Your task to perform on an android device: Search for the best rated tool bag on Lowe's. Image 0: 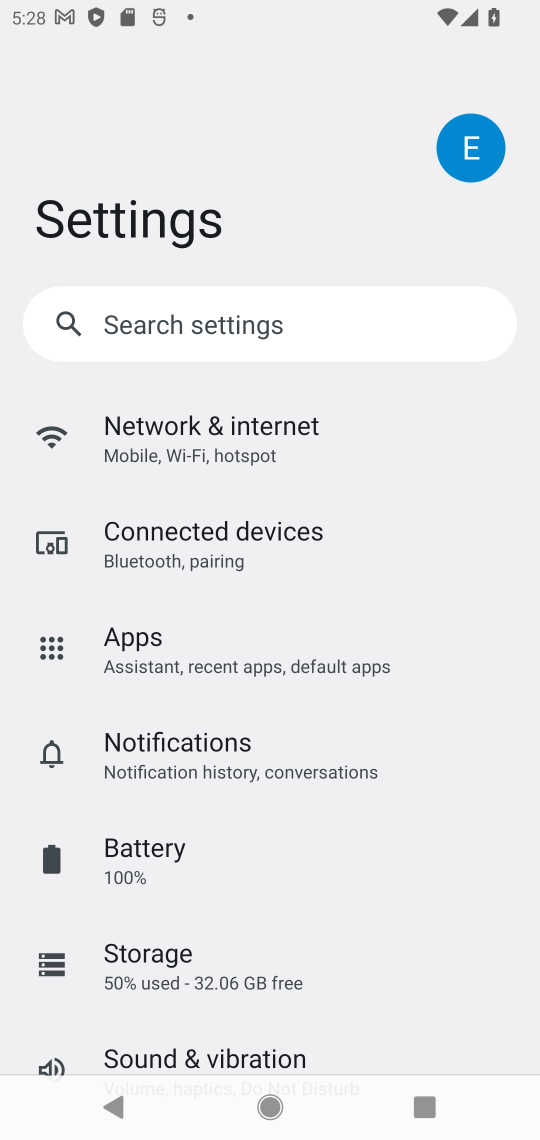
Step 0: press home button
Your task to perform on an android device: Search for the best rated tool bag on Lowe's. Image 1: 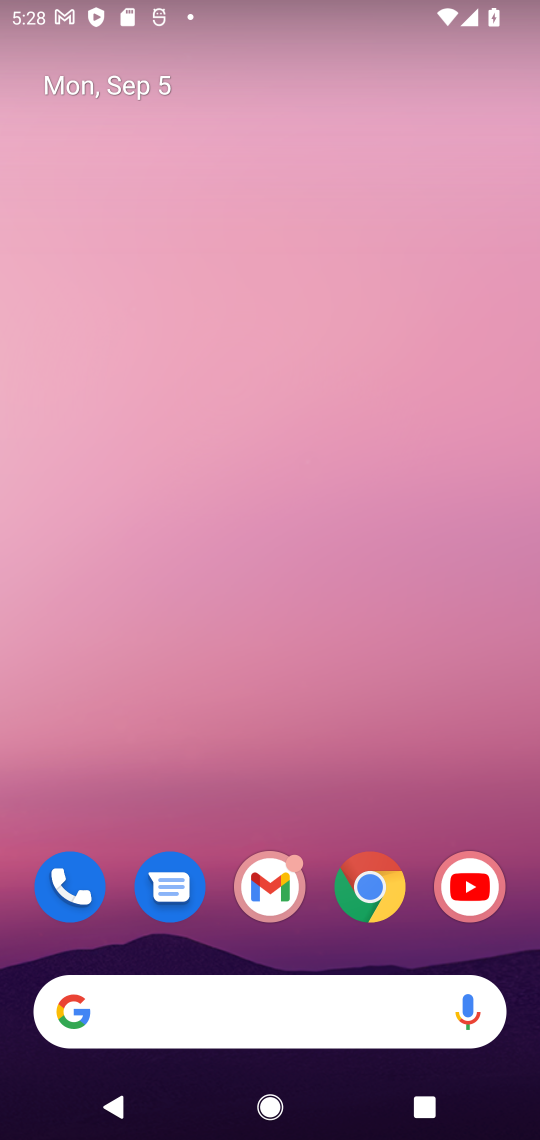
Step 1: drag from (320, 804) to (423, 316)
Your task to perform on an android device: Search for the best rated tool bag on Lowe's. Image 2: 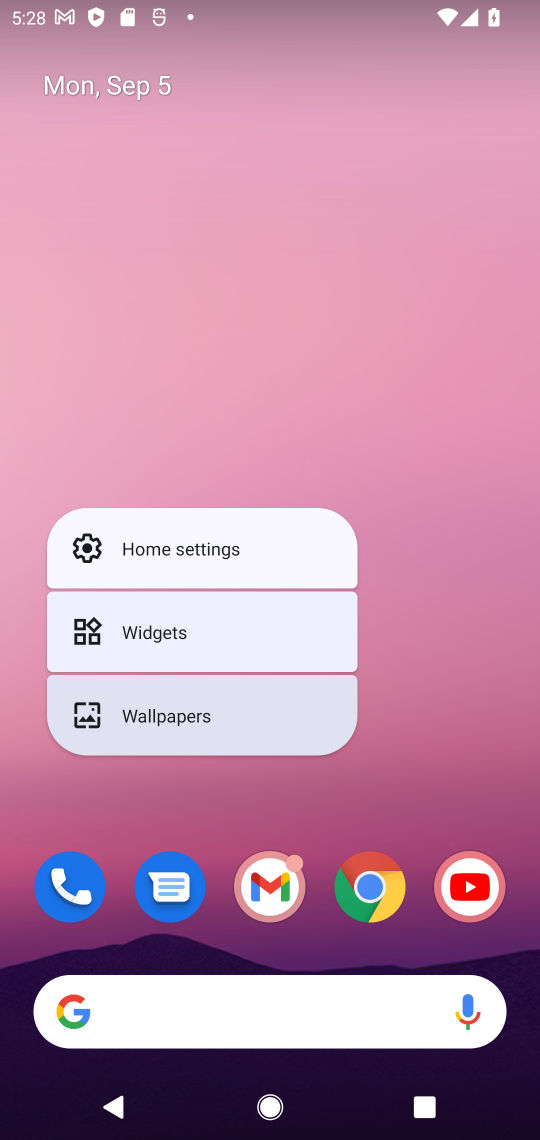
Step 2: click (479, 389)
Your task to perform on an android device: Search for the best rated tool bag on Lowe's. Image 3: 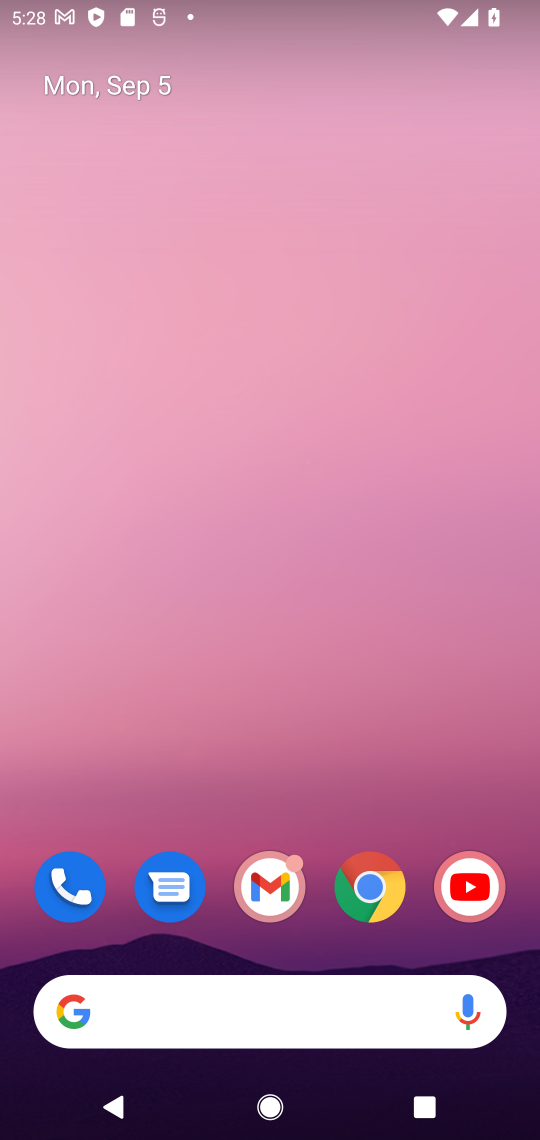
Step 3: drag from (324, 656) to (237, 78)
Your task to perform on an android device: Search for the best rated tool bag on Lowe's. Image 4: 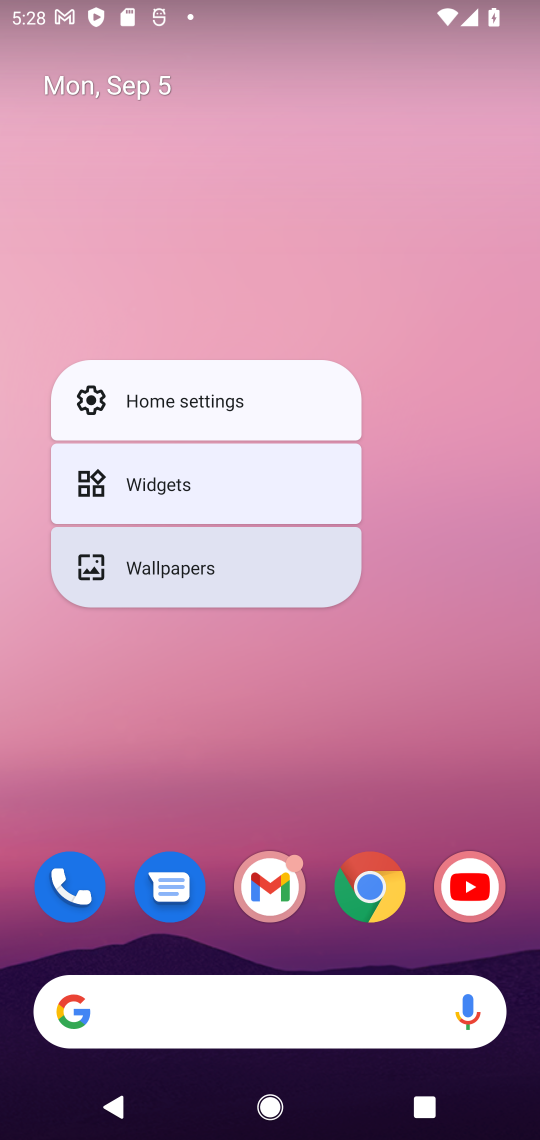
Step 4: click (253, 170)
Your task to perform on an android device: Search for the best rated tool bag on Lowe's. Image 5: 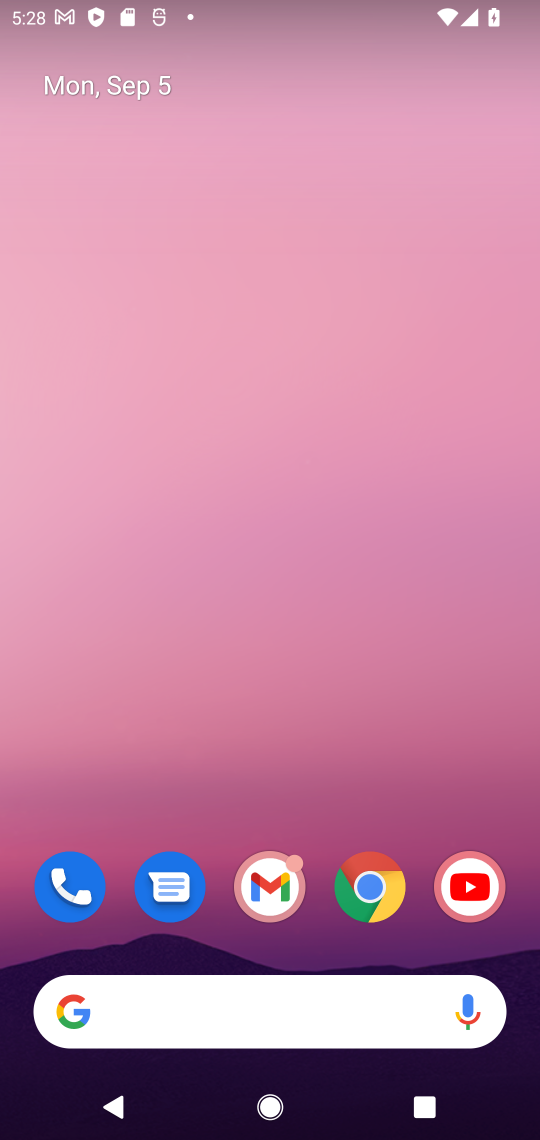
Step 5: drag from (270, 497) to (228, 103)
Your task to perform on an android device: Search for the best rated tool bag on Lowe's. Image 6: 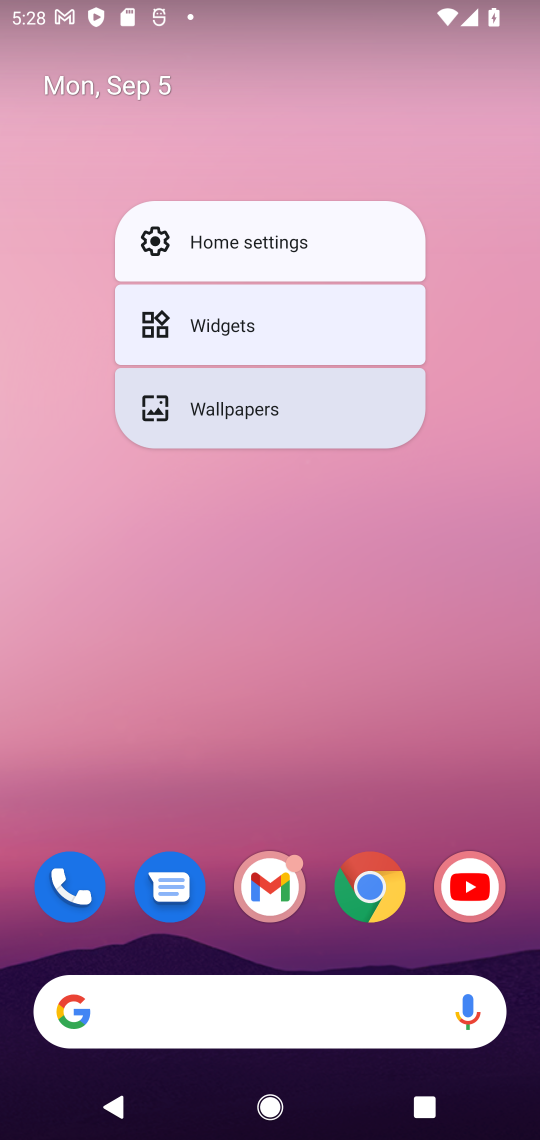
Step 6: click (250, 642)
Your task to perform on an android device: Search for the best rated tool bag on Lowe's. Image 7: 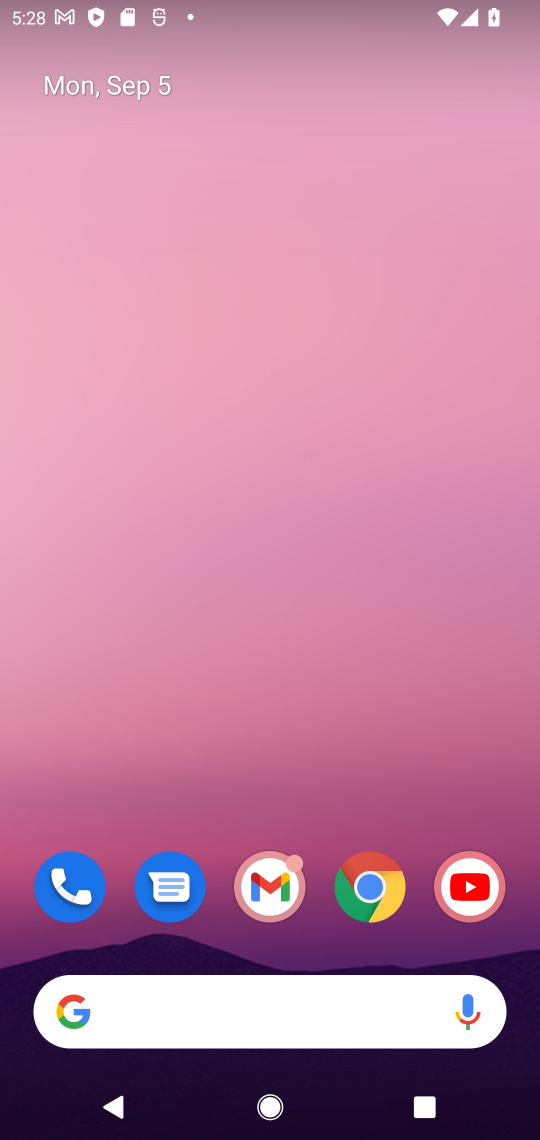
Step 7: drag from (327, 801) to (337, 11)
Your task to perform on an android device: Search for the best rated tool bag on Lowe's. Image 8: 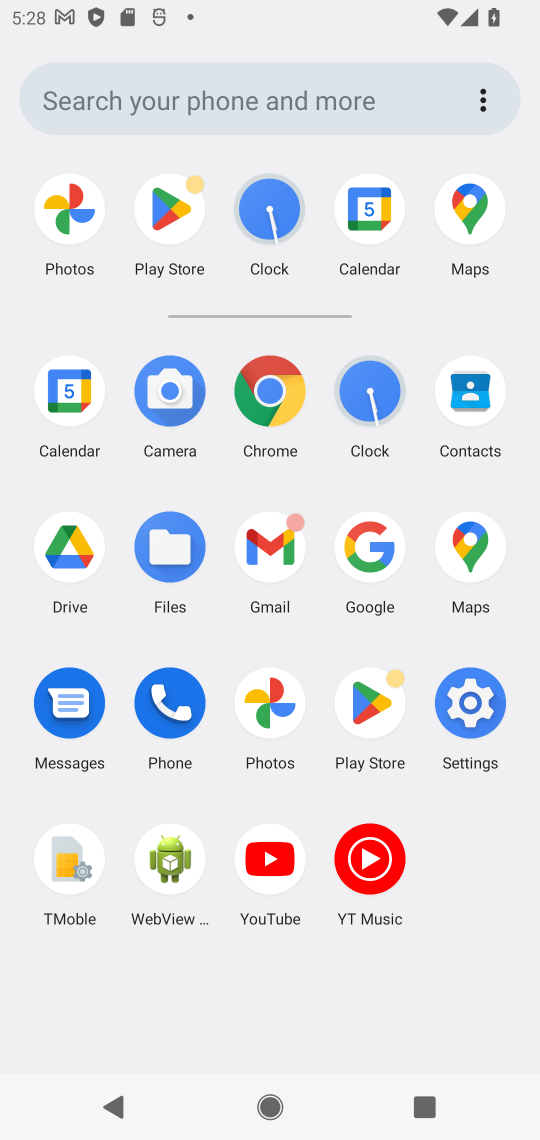
Step 8: click (273, 398)
Your task to perform on an android device: Search for the best rated tool bag on Lowe's. Image 9: 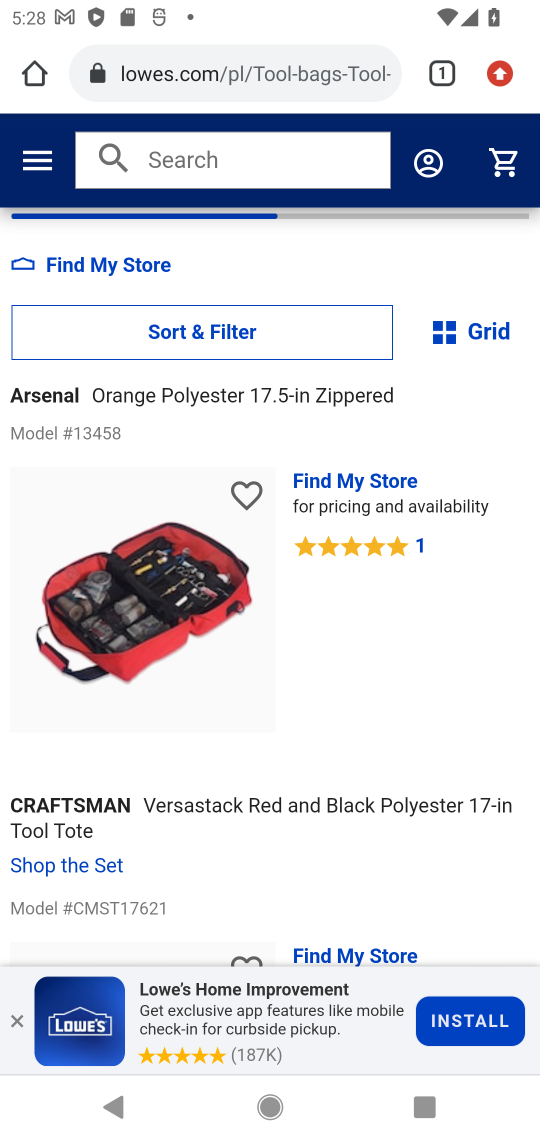
Step 9: click (304, 60)
Your task to perform on an android device: Search for the best rated tool bag on Lowe's. Image 10: 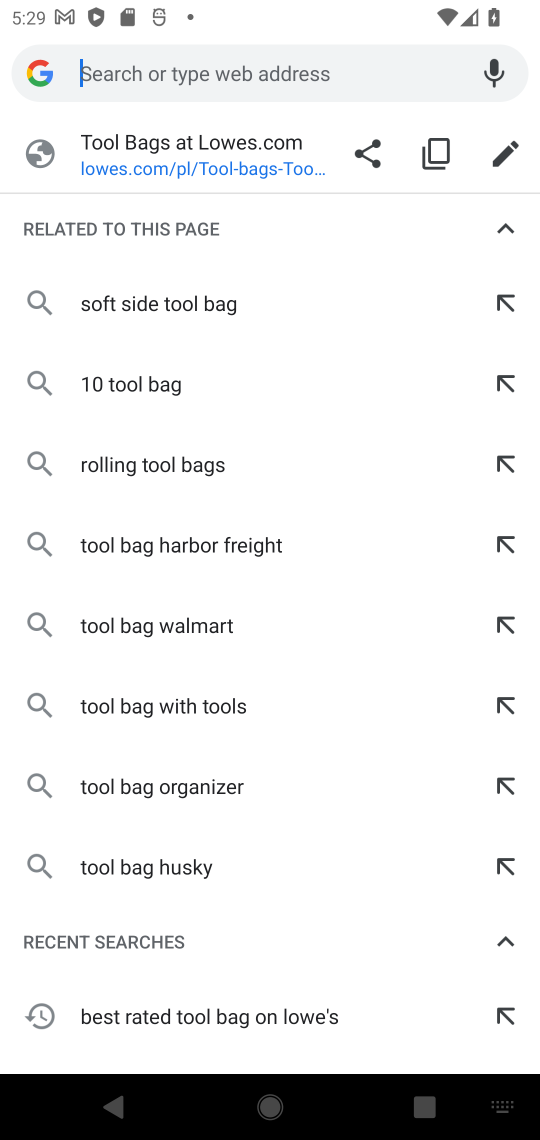
Step 10: type "best rated tool bag on Lowe's"
Your task to perform on an android device: Search for the best rated tool bag on Lowe's. Image 11: 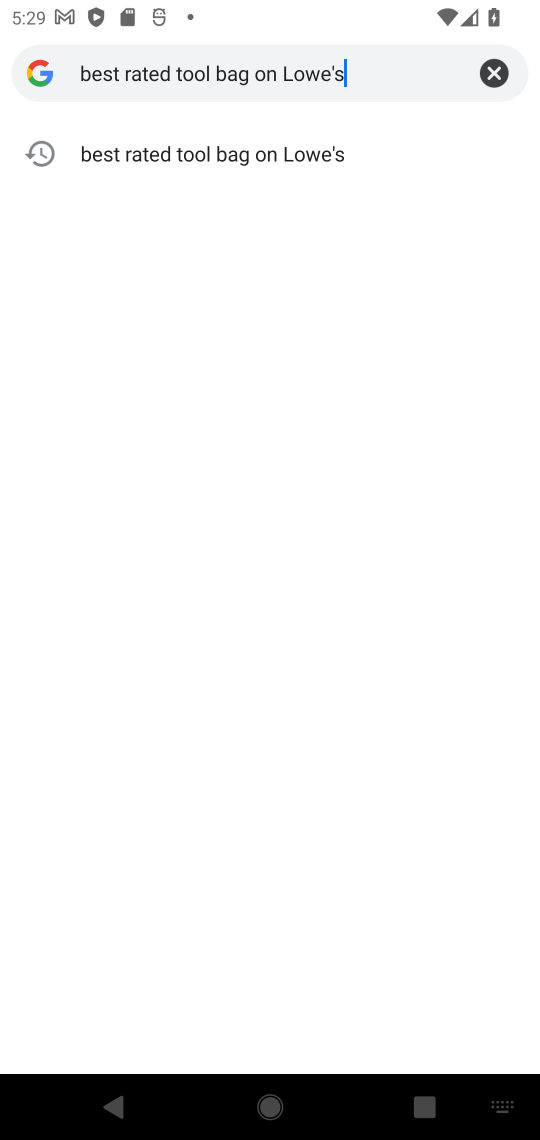
Step 11: press enter
Your task to perform on an android device: Search for the best rated tool bag on Lowe's. Image 12: 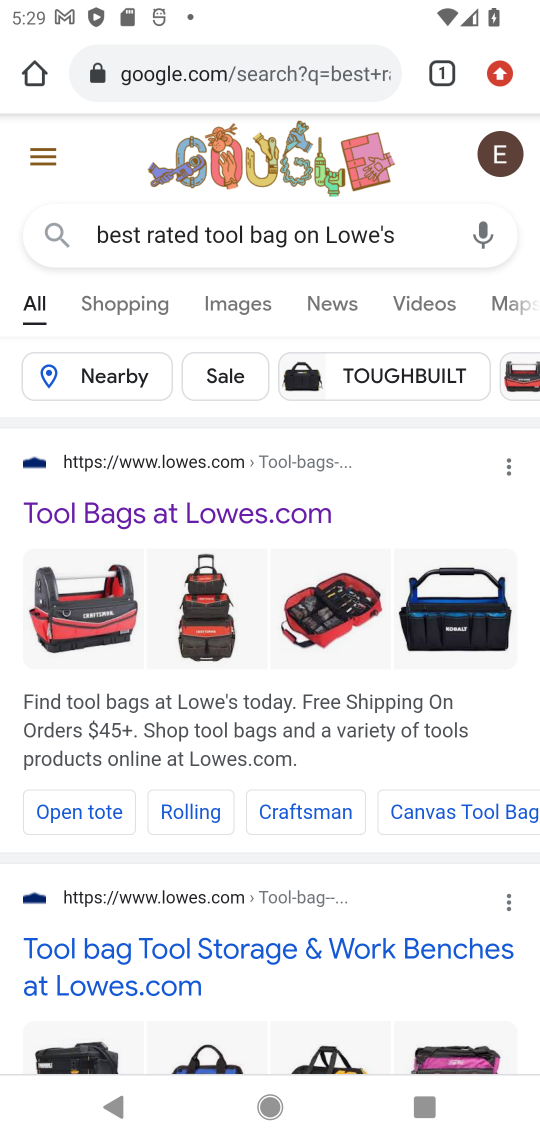
Step 12: click (156, 516)
Your task to perform on an android device: Search for the best rated tool bag on Lowe's. Image 13: 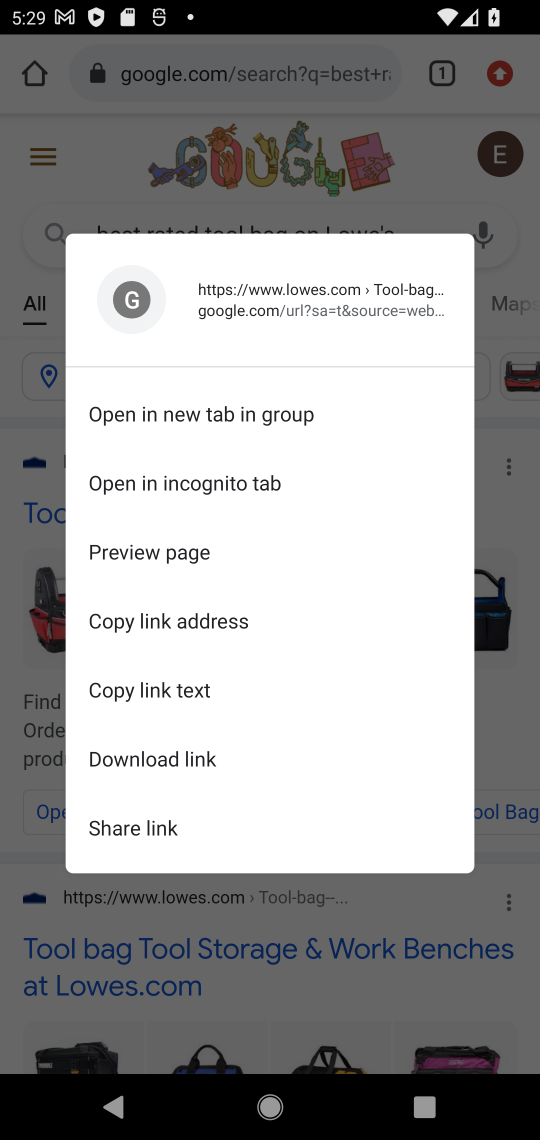
Step 13: click (61, 486)
Your task to perform on an android device: Search for the best rated tool bag on Lowe's. Image 14: 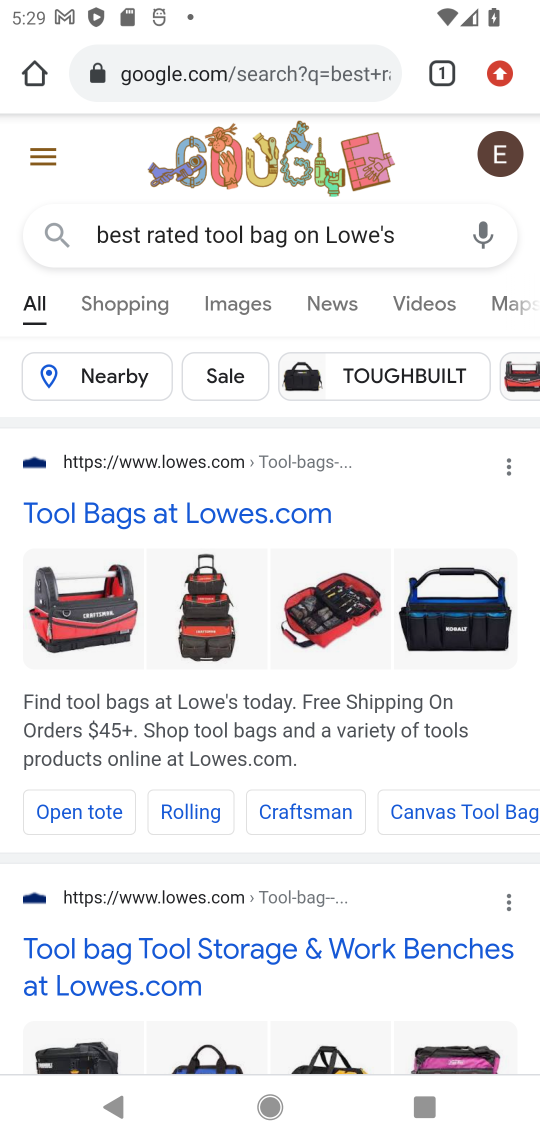
Step 14: click (94, 517)
Your task to perform on an android device: Search for the best rated tool bag on Lowe's. Image 15: 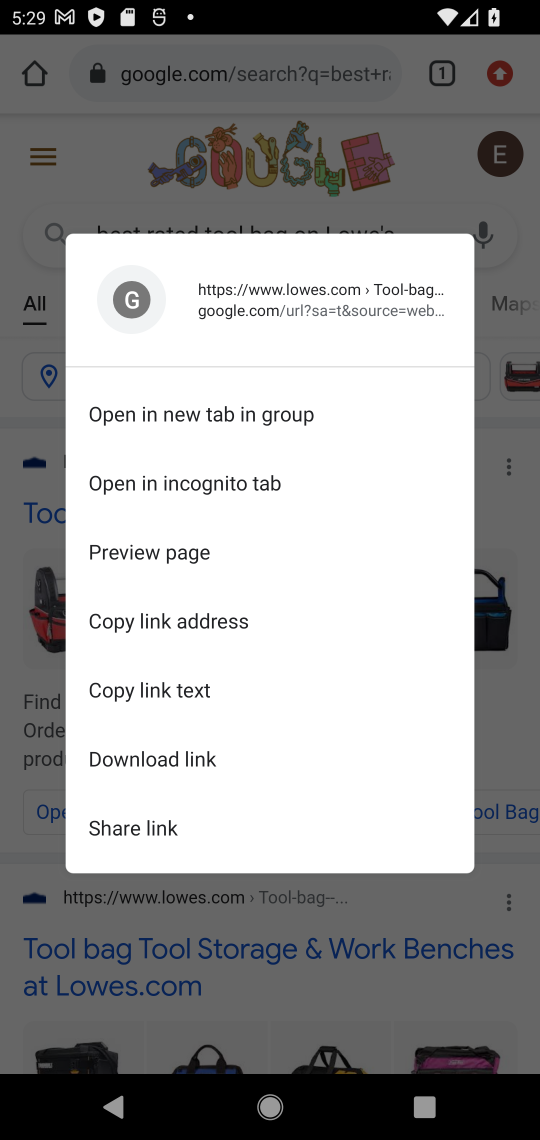
Step 15: click (519, 439)
Your task to perform on an android device: Search for the best rated tool bag on Lowe's. Image 16: 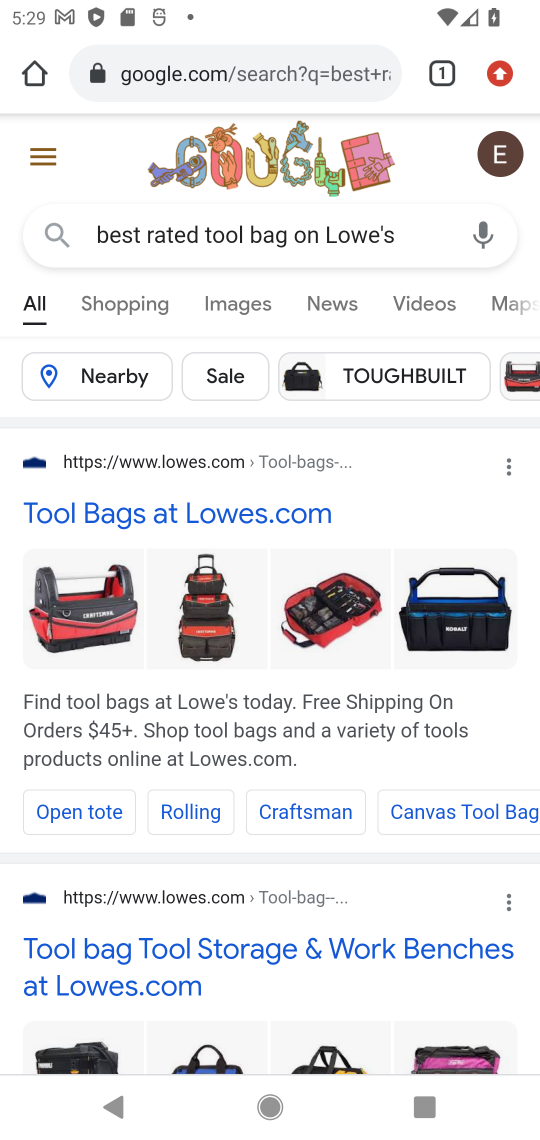
Step 16: click (231, 502)
Your task to perform on an android device: Search for the best rated tool bag on Lowe's. Image 17: 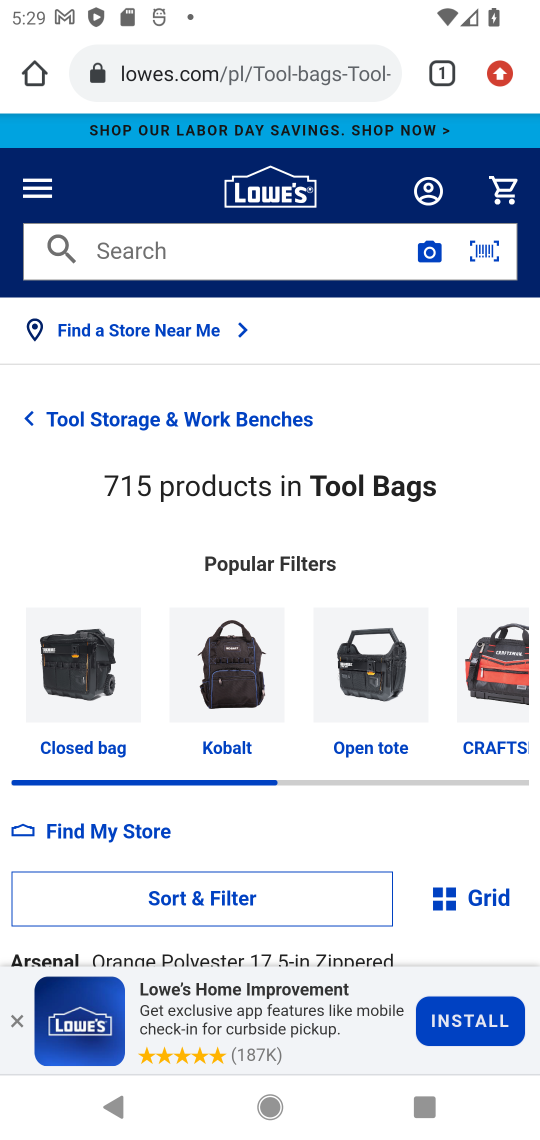
Step 17: drag from (330, 623) to (290, 108)
Your task to perform on an android device: Search for the best rated tool bag on Lowe's. Image 18: 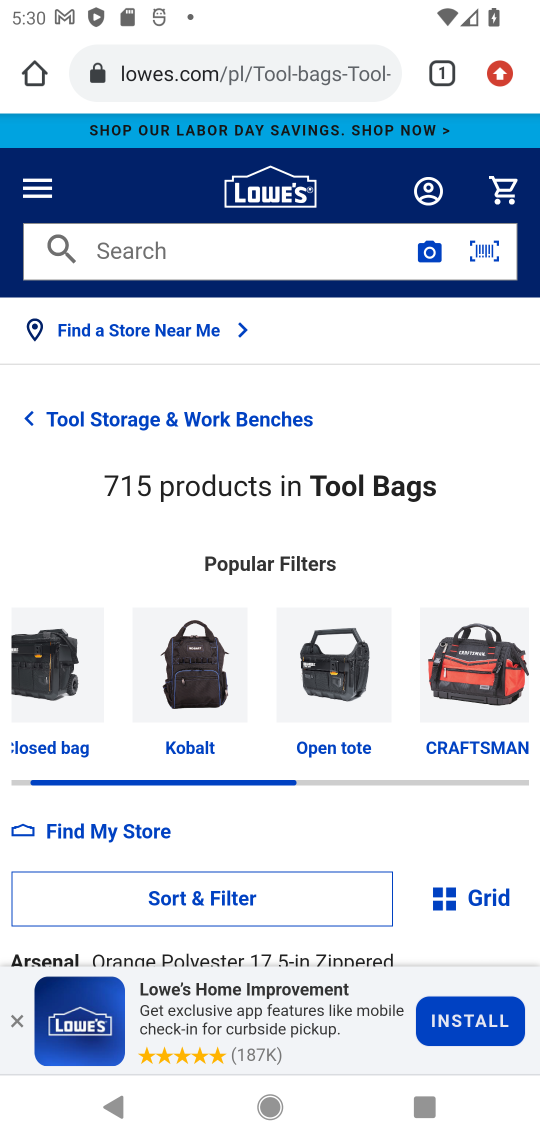
Step 18: drag from (262, 593) to (293, 260)
Your task to perform on an android device: Search for the best rated tool bag on Lowe's. Image 19: 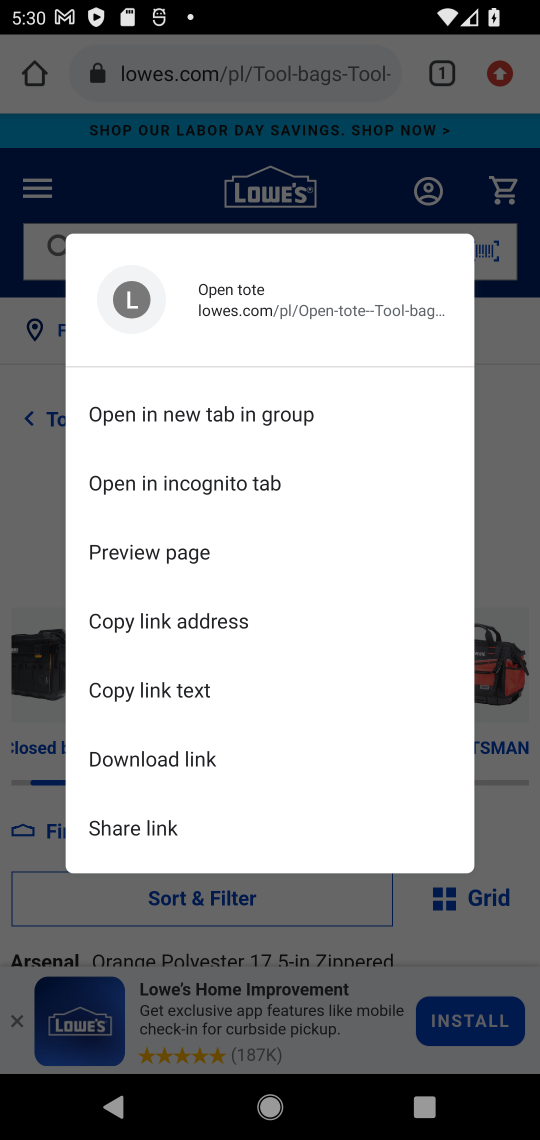
Step 19: click (521, 349)
Your task to perform on an android device: Search for the best rated tool bag on Lowe's. Image 20: 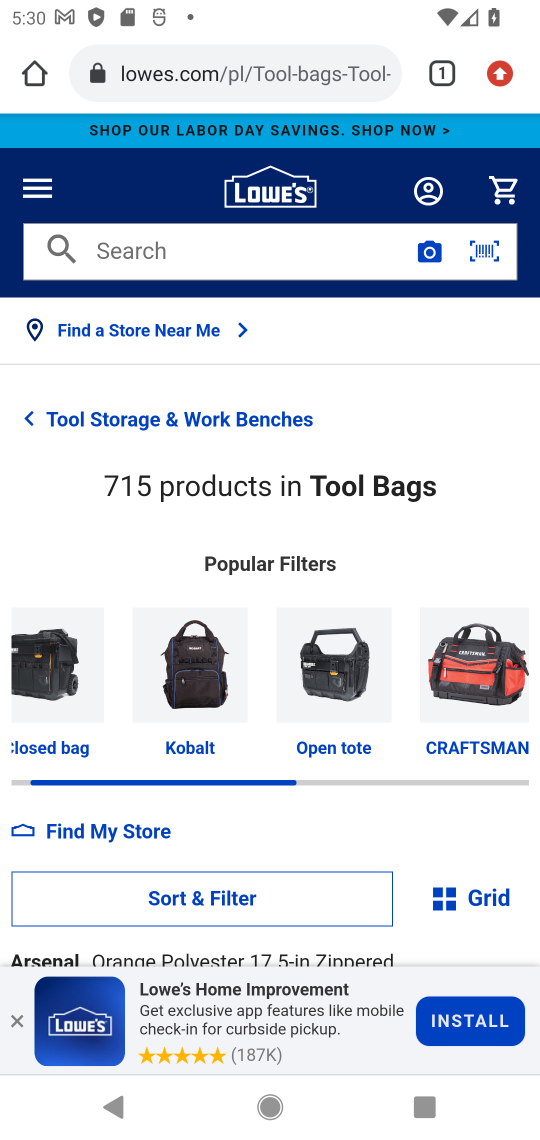
Step 20: task complete